Your task to perform on an android device: move an email to a new category in the gmail app Image 0: 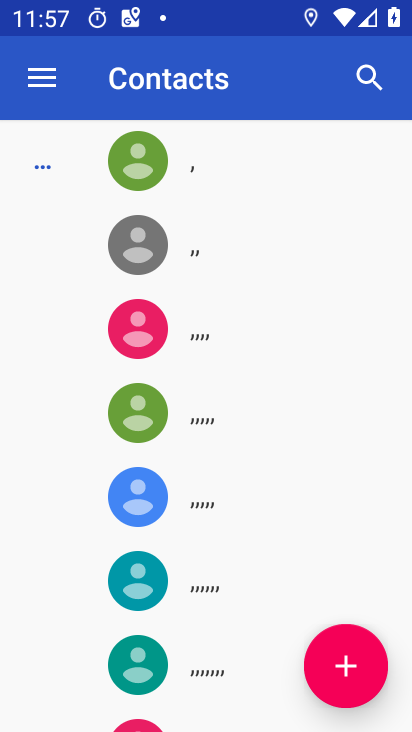
Step 0: press home button
Your task to perform on an android device: move an email to a new category in the gmail app Image 1: 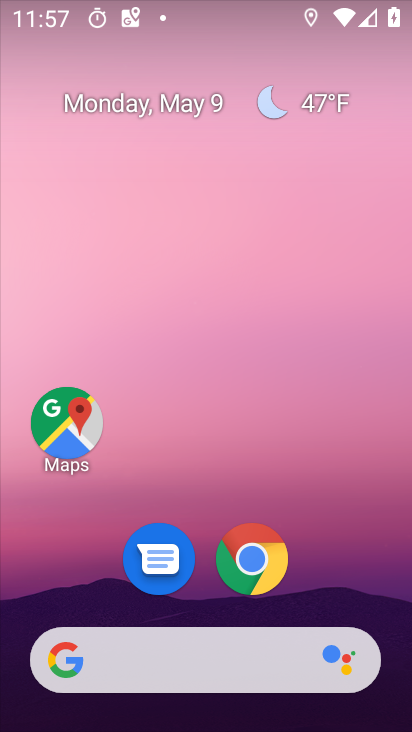
Step 1: drag from (330, 574) to (265, 137)
Your task to perform on an android device: move an email to a new category in the gmail app Image 2: 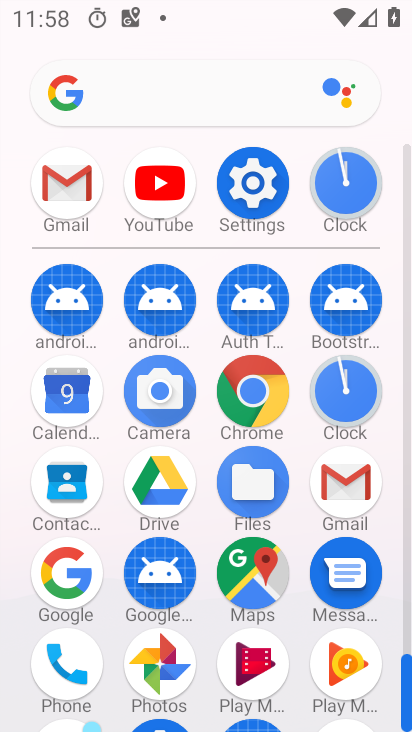
Step 2: click (345, 462)
Your task to perform on an android device: move an email to a new category in the gmail app Image 3: 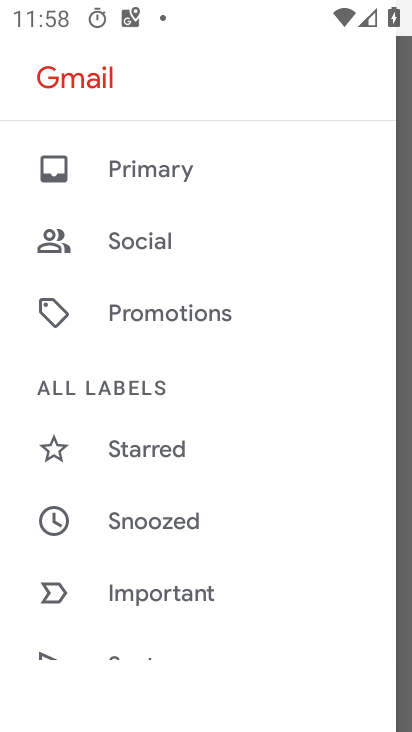
Step 3: task complete